Your task to perform on an android device: Go to display settings Image 0: 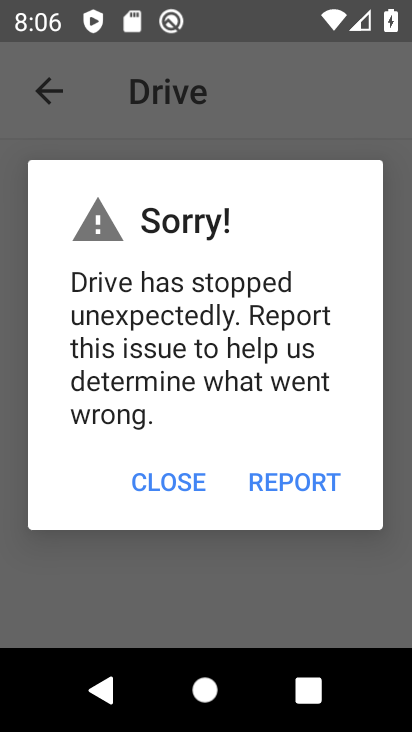
Step 0: press home button
Your task to perform on an android device: Go to display settings Image 1: 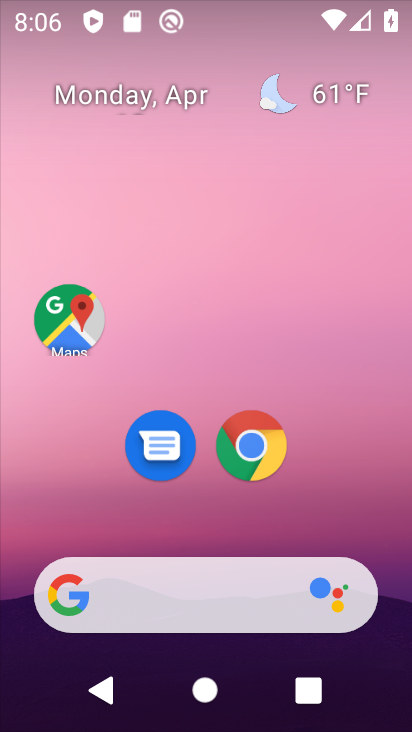
Step 1: click (207, 688)
Your task to perform on an android device: Go to display settings Image 2: 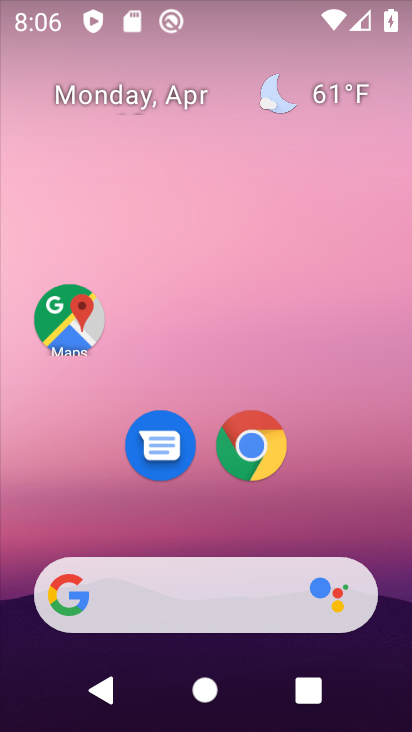
Step 2: drag from (200, 455) to (175, 181)
Your task to perform on an android device: Go to display settings Image 3: 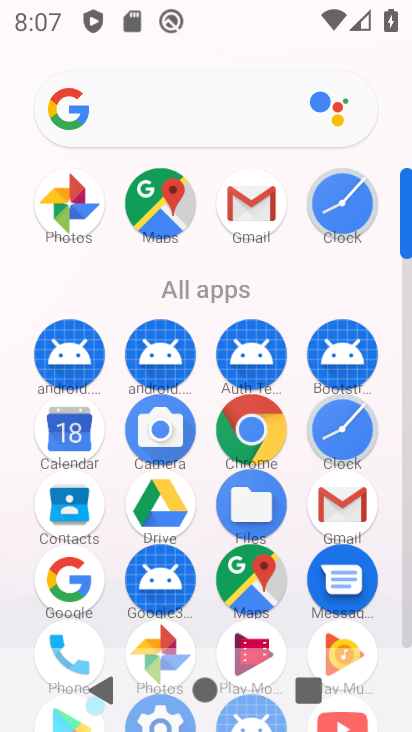
Step 3: click (169, 713)
Your task to perform on an android device: Go to display settings Image 4: 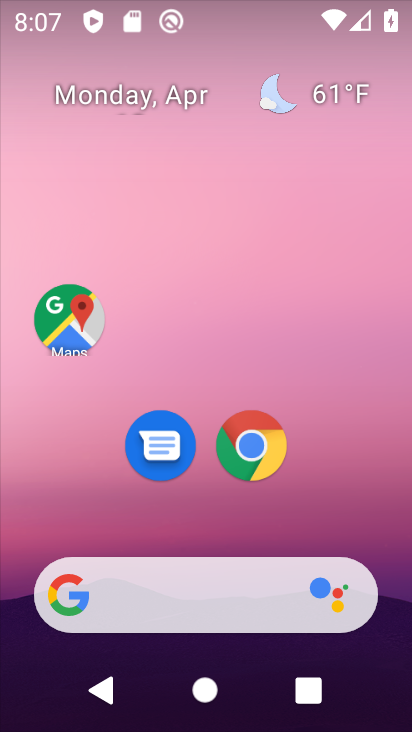
Step 4: drag from (154, 544) to (184, 9)
Your task to perform on an android device: Go to display settings Image 5: 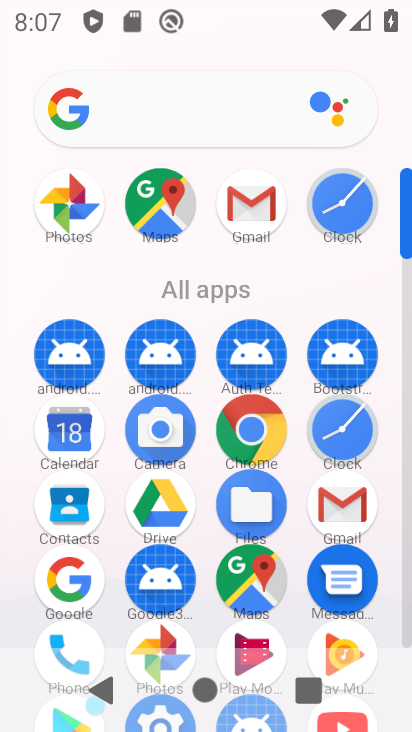
Step 5: drag from (408, 254) to (408, 343)
Your task to perform on an android device: Go to display settings Image 6: 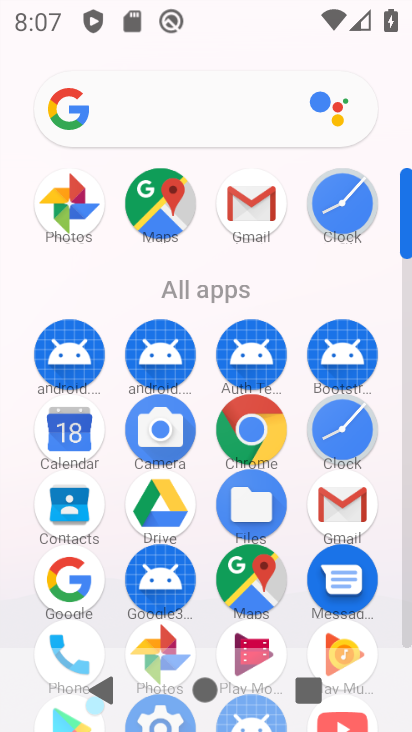
Step 6: click (172, 717)
Your task to perform on an android device: Go to display settings Image 7: 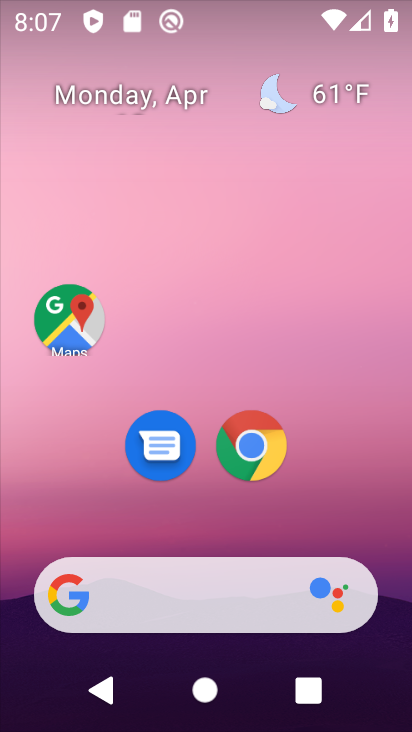
Step 7: drag from (221, 536) to (228, 72)
Your task to perform on an android device: Go to display settings Image 8: 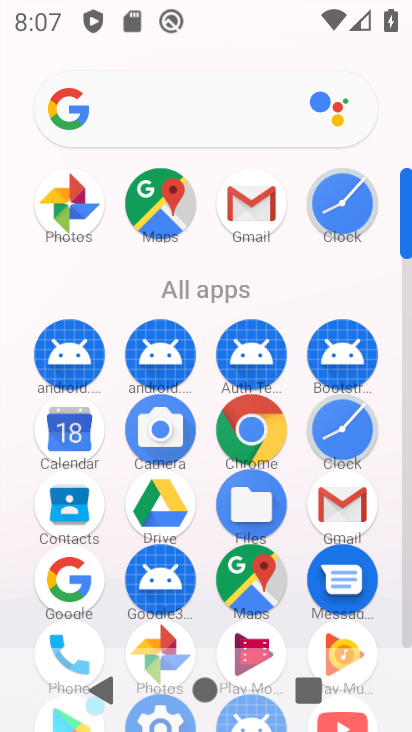
Step 8: drag from (204, 499) to (234, 189)
Your task to perform on an android device: Go to display settings Image 9: 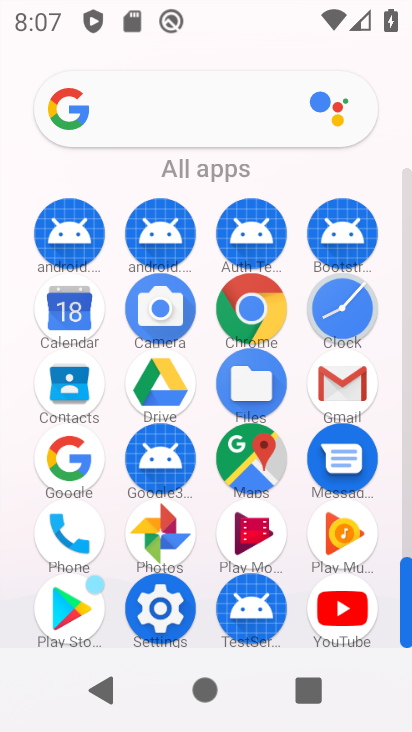
Step 9: click (162, 608)
Your task to perform on an android device: Go to display settings Image 10: 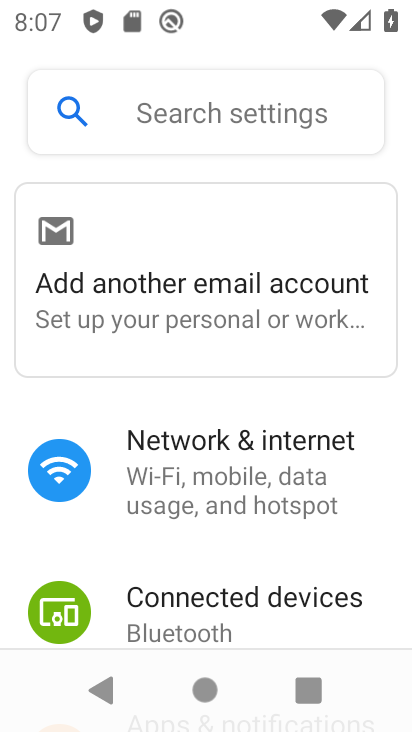
Step 10: drag from (228, 517) to (309, 263)
Your task to perform on an android device: Go to display settings Image 11: 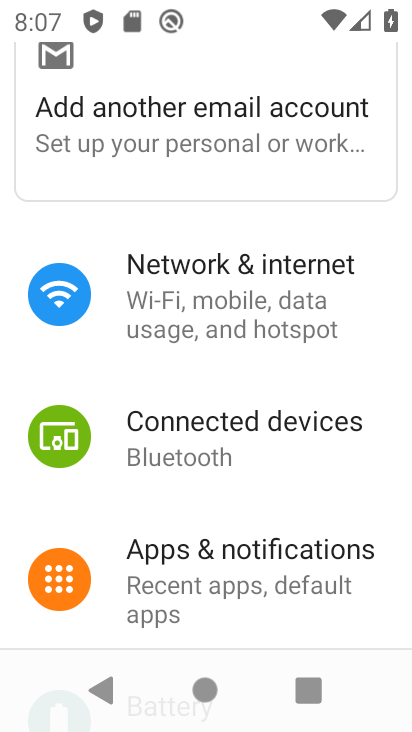
Step 11: drag from (171, 509) to (238, 269)
Your task to perform on an android device: Go to display settings Image 12: 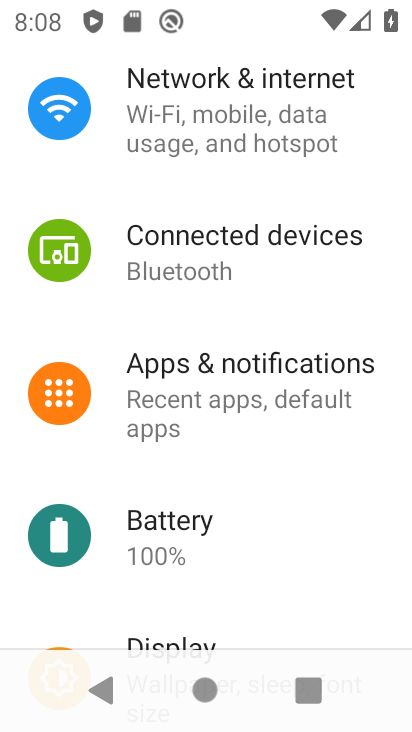
Step 12: drag from (180, 602) to (243, 321)
Your task to perform on an android device: Go to display settings Image 13: 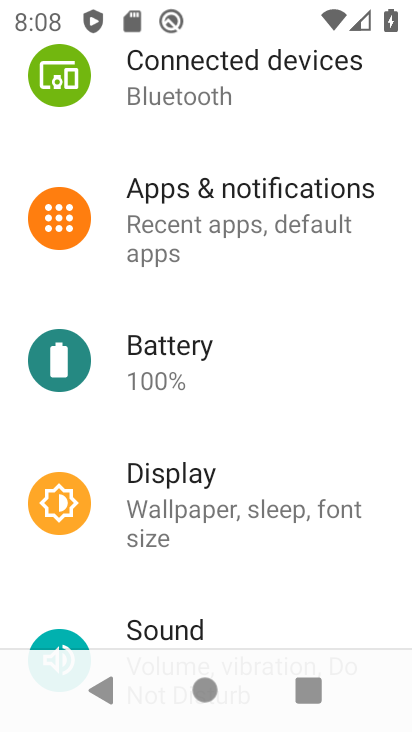
Step 13: click (161, 502)
Your task to perform on an android device: Go to display settings Image 14: 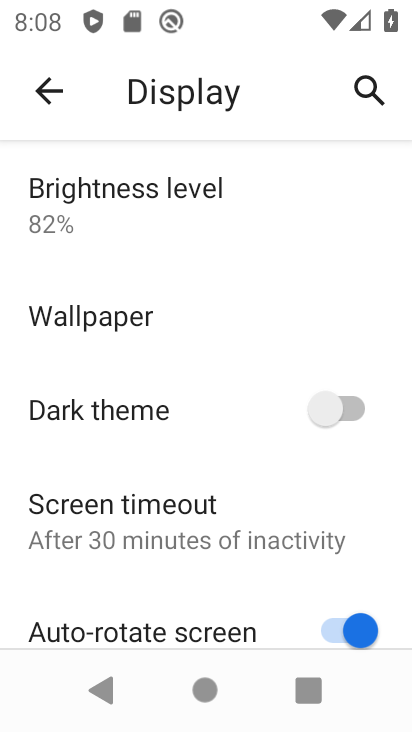
Step 14: task complete